Your task to perform on an android device: open app "Walmart Shopping & Grocery" (install if not already installed) and go to login screen Image 0: 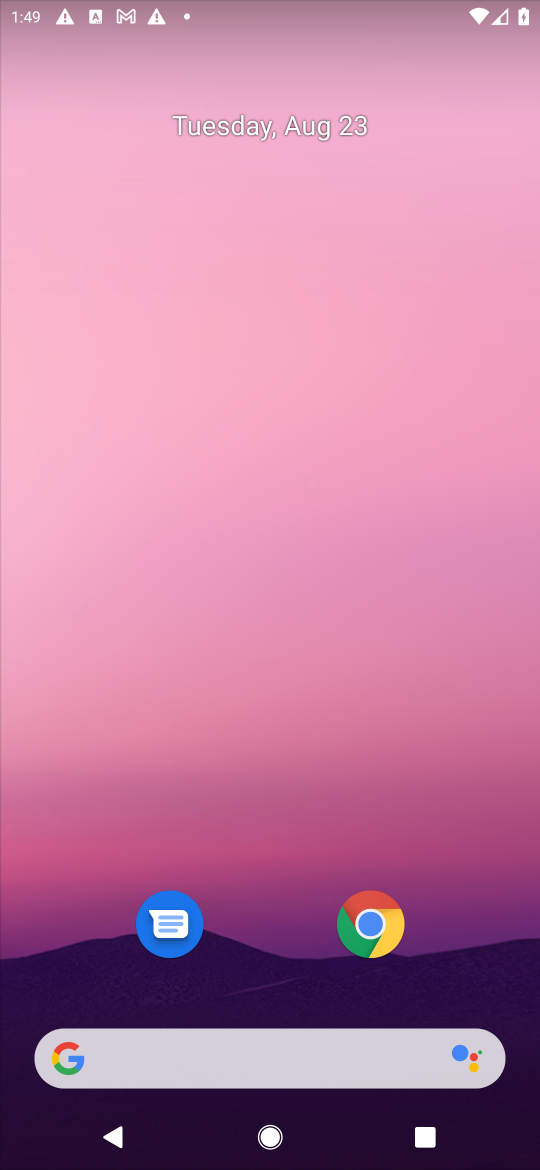
Step 0: press home button
Your task to perform on an android device: open app "Walmart Shopping & Grocery" (install if not already installed) and go to login screen Image 1: 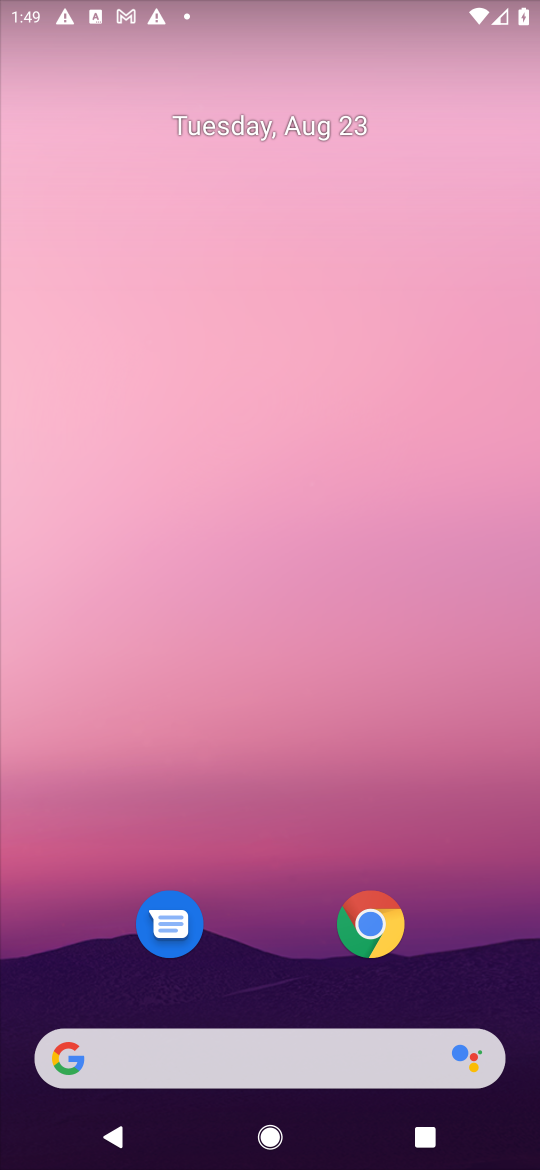
Step 1: drag from (476, 923) to (454, 204)
Your task to perform on an android device: open app "Walmart Shopping & Grocery" (install if not already installed) and go to login screen Image 2: 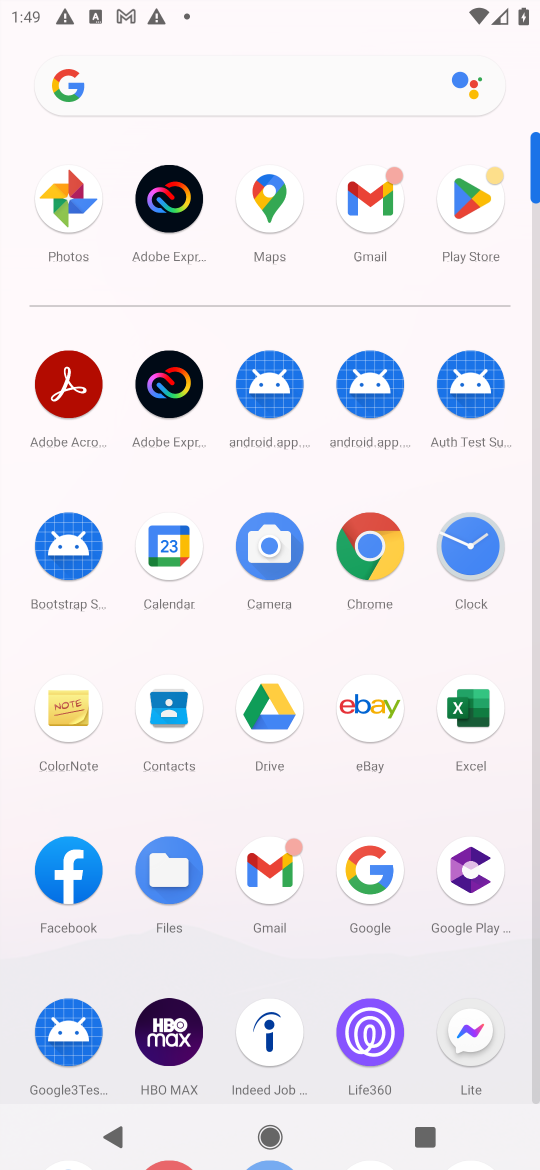
Step 2: click (477, 197)
Your task to perform on an android device: open app "Walmart Shopping & Grocery" (install if not already installed) and go to login screen Image 3: 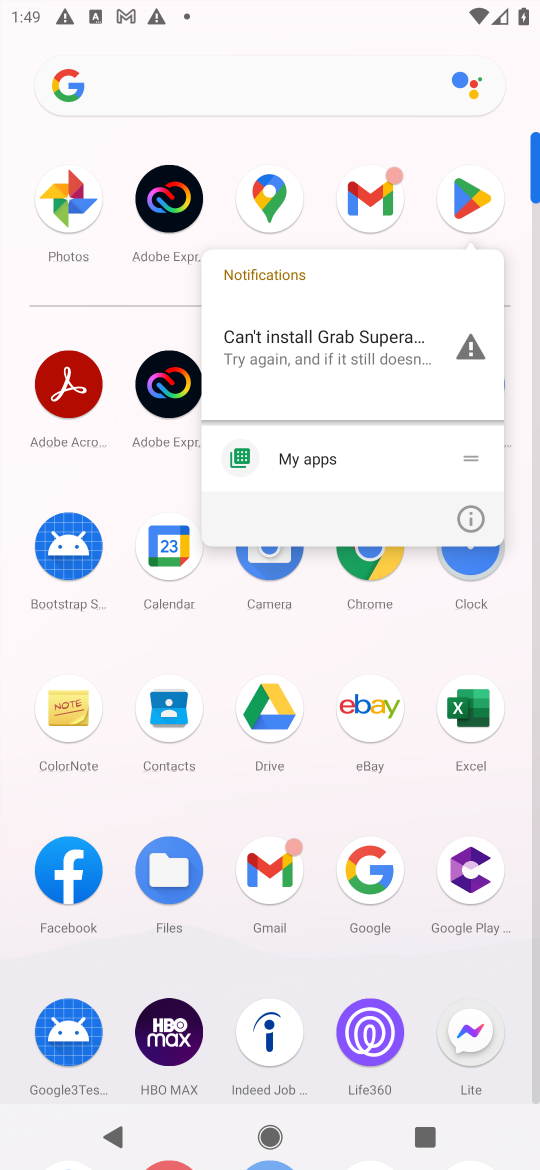
Step 3: click (465, 188)
Your task to perform on an android device: open app "Walmart Shopping & Grocery" (install if not already installed) and go to login screen Image 4: 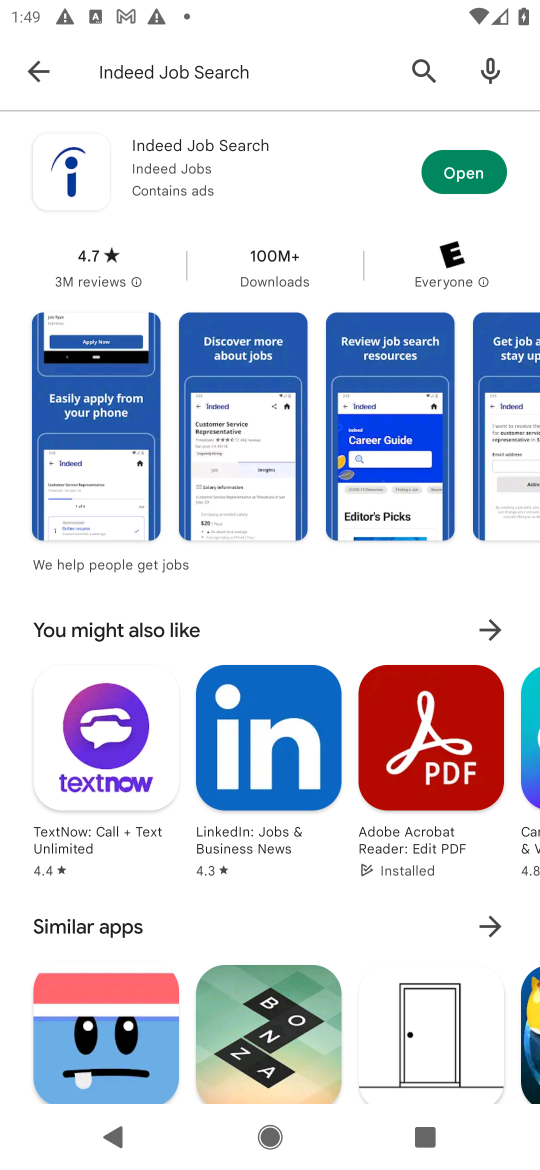
Step 4: press back button
Your task to perform on an android device: open app "Walmart Shopping & Grocery" (install if not already installed) and go to login screen Image 5: 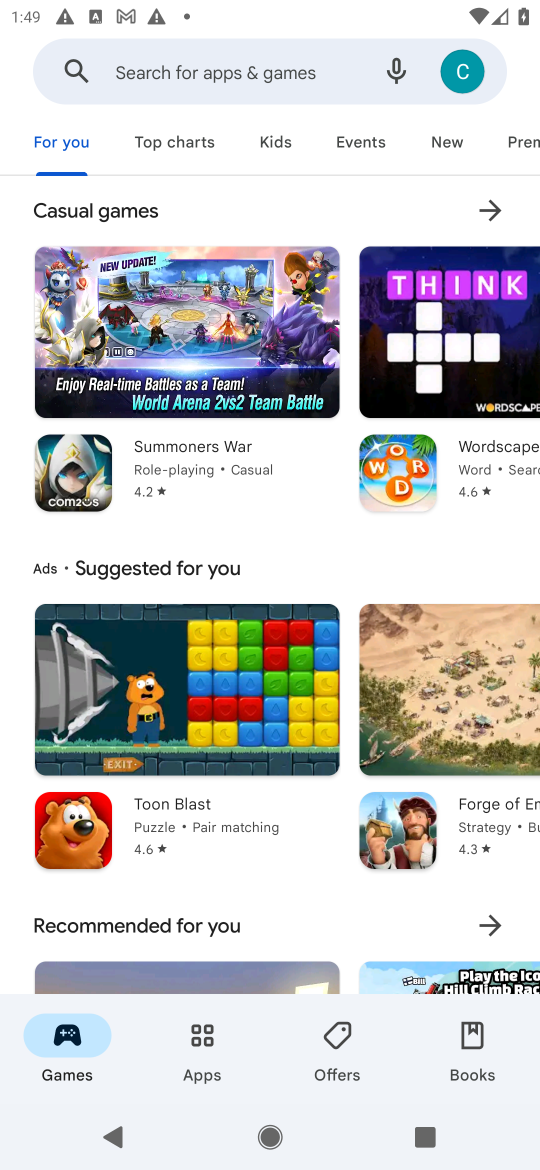
Step 5: click (187, 63)
Your task to perform on an android device: open app "Walmart Shopping & Grocery" (install if not already installed) and go to login screen Image 6: 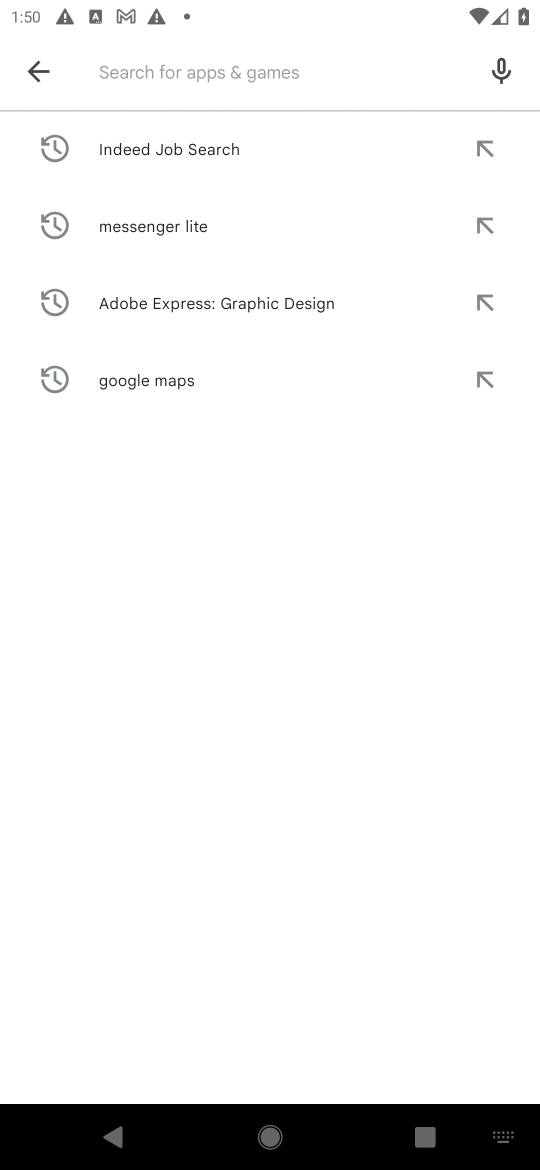
Step 6: press enter
Your task to perform on an android device: open app "Walmart Shopping & Grocery" (install if not already installed) and go to login screen Image 7: 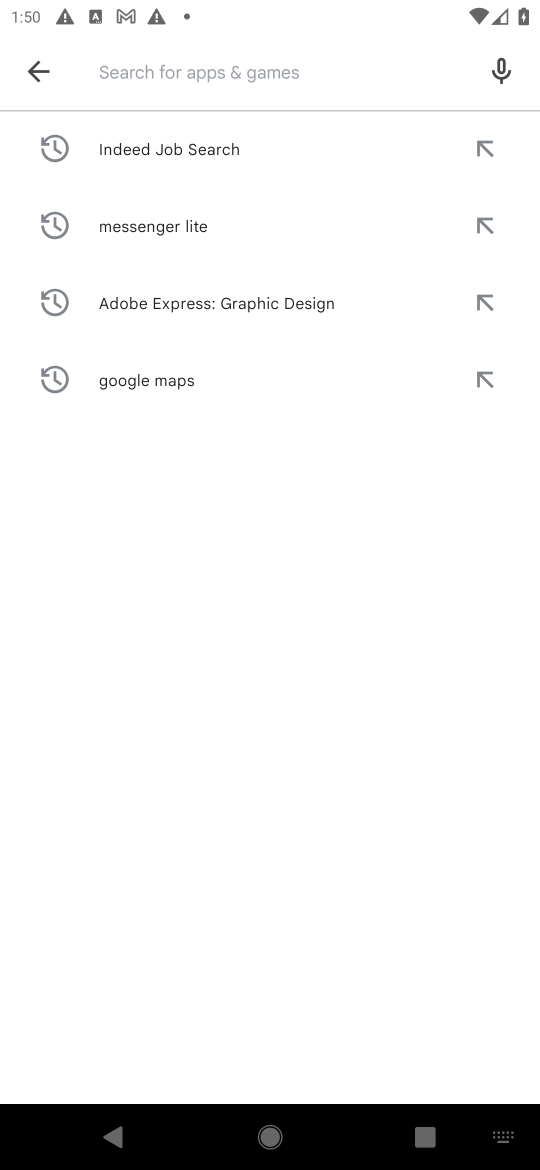
Step 7: type "Walmart Shopping & Grocery"
Your task to perform on an android device: open app "Walmart Shopping & Grocery" (install if not already installed) and go to login screen Image 8: 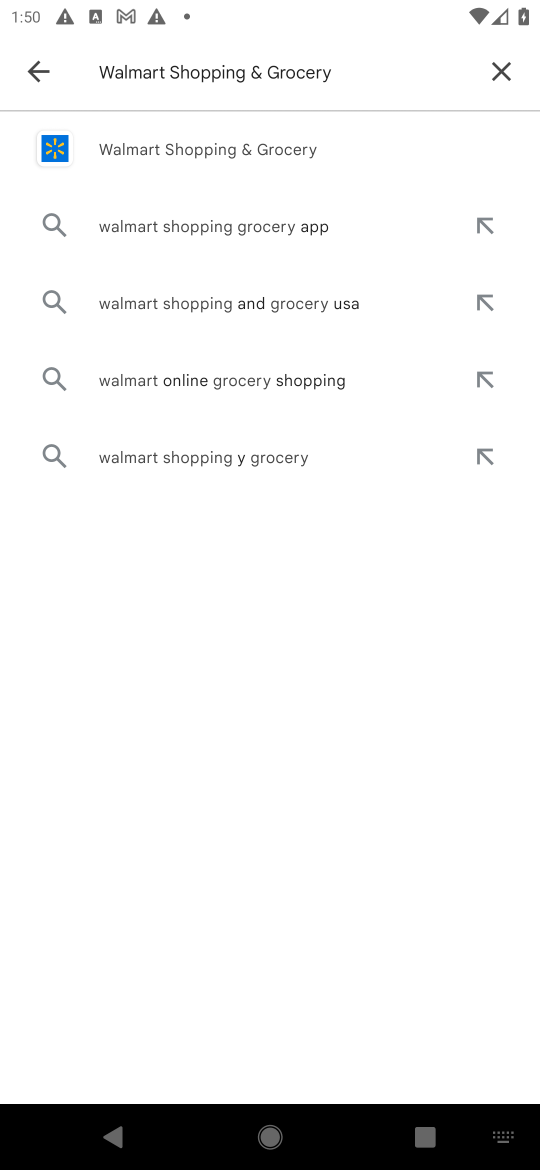
Step 8: click (211, 140)
Your task to perform on an android device: open app "Walmart Shopping & Grocery" (install if not already installed) and go to login screen Image 9: 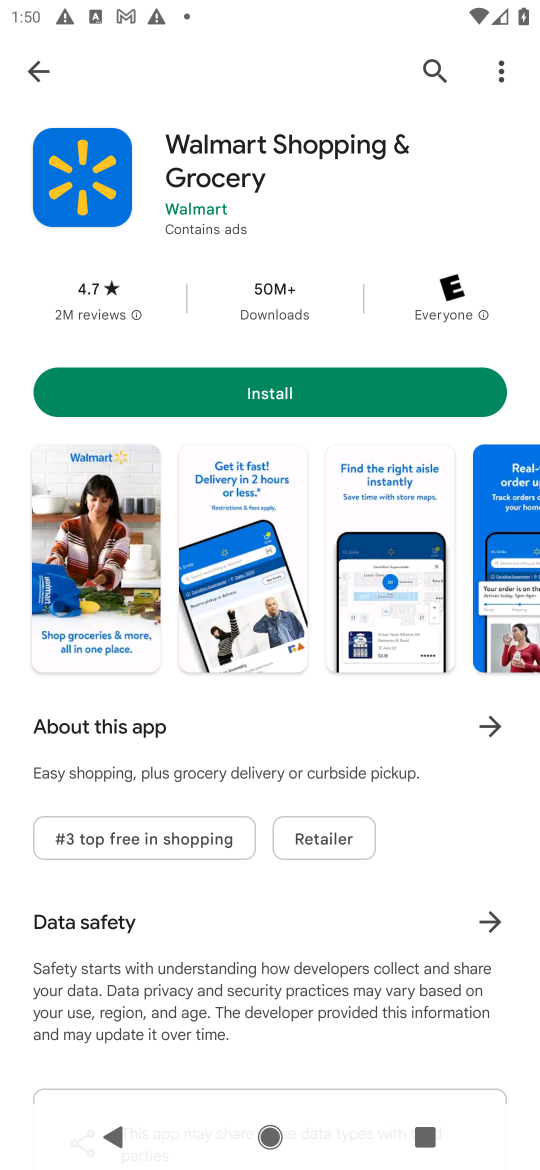
Step 9: click (294, 397)
Your task to perform on an android device: open app "Walmart Shopping & Grocery" (install if not already installed) and go to login screen Image 10: 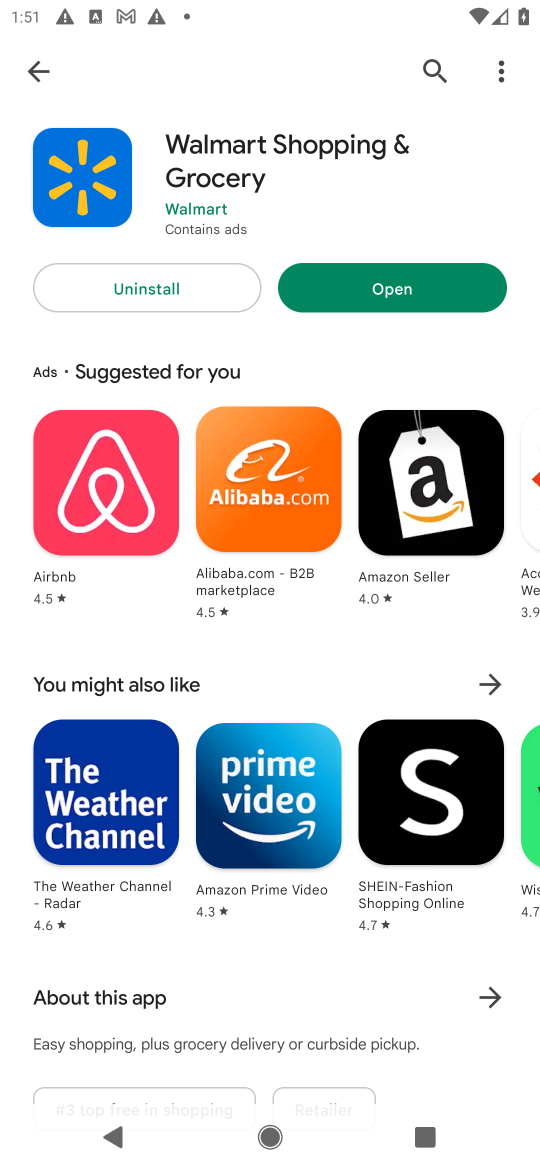
Step 10: click (396, 291)
Your task to perform on an android device: open app "Walmart Shopping & Grocery" (install if not already installed) and go to login screen Image 11: 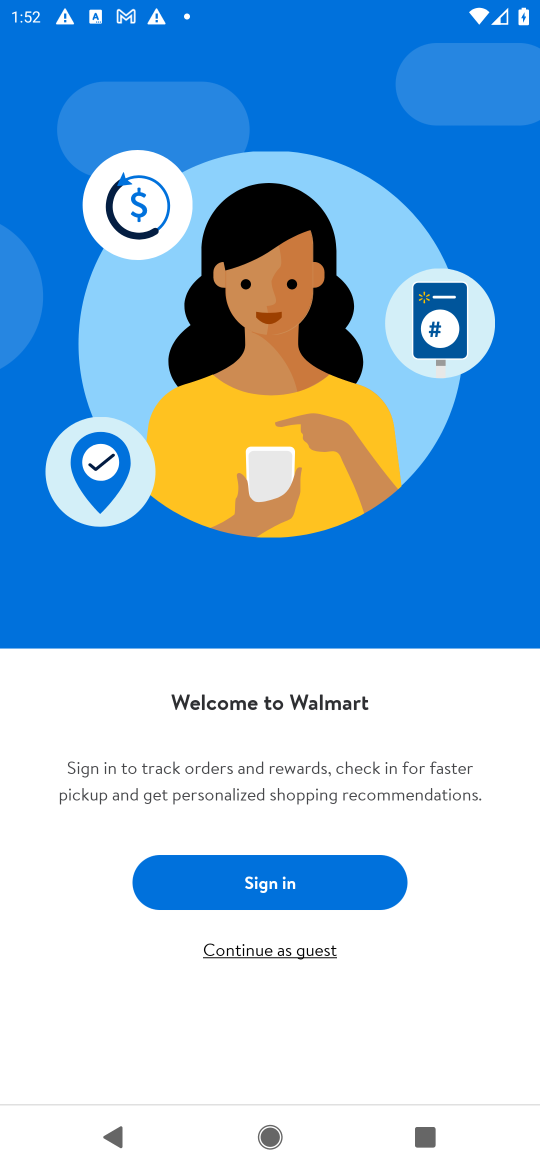
Step 11: task complete